Your task to perform on an android device: change the clock style Image 0: 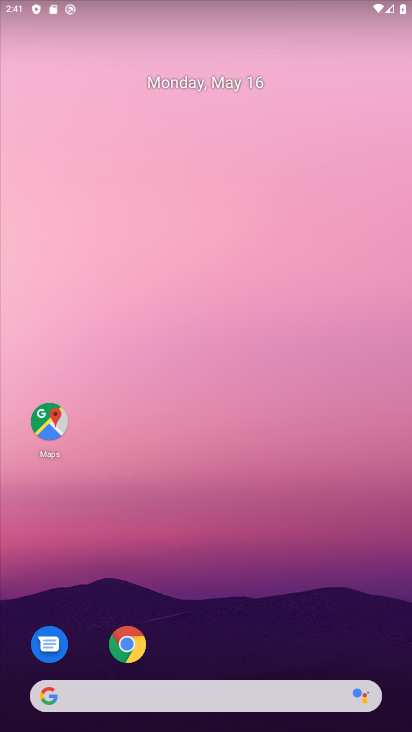
Step 0: drag from (173, 662) to (251, 243)
Your task to perform on an android device: change the clock style Image 1: 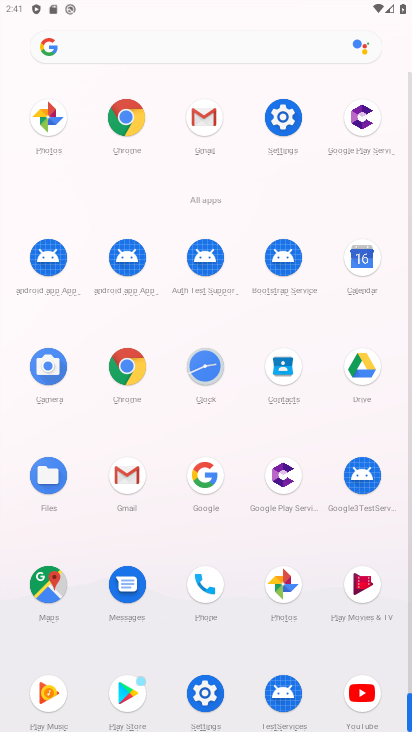
Step 1: click (204, 342)
Your task to perform on an android device: change the clock style Image 2: 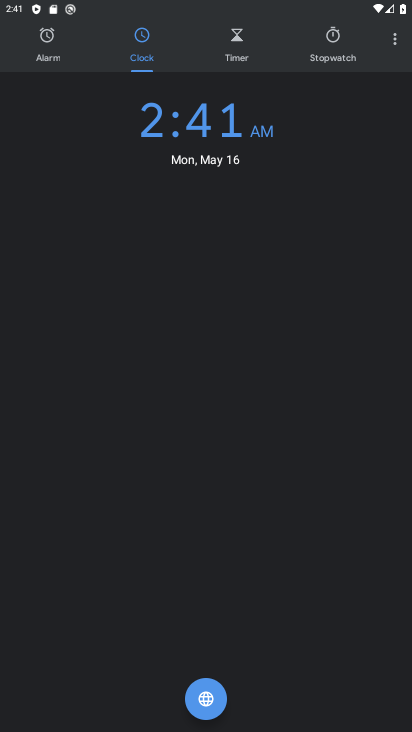
Step 2: click (389, 31)
Your task to perform on an android device: change the clock style Image 3: 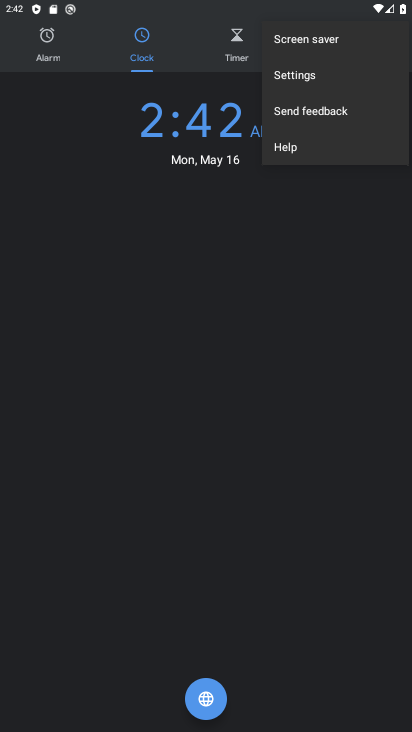
Step 3: click (339, 80)
Your task to perform on an android device: change the clock style Image 4: 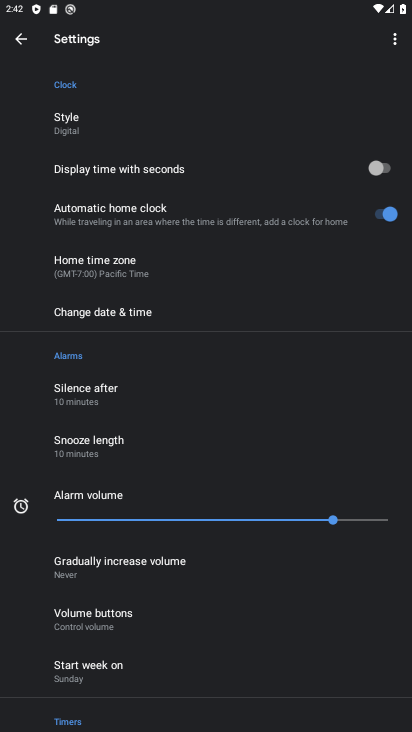
Step 4: click (190, 131)
Your task to perform on an android device: change the clock style Image 5: 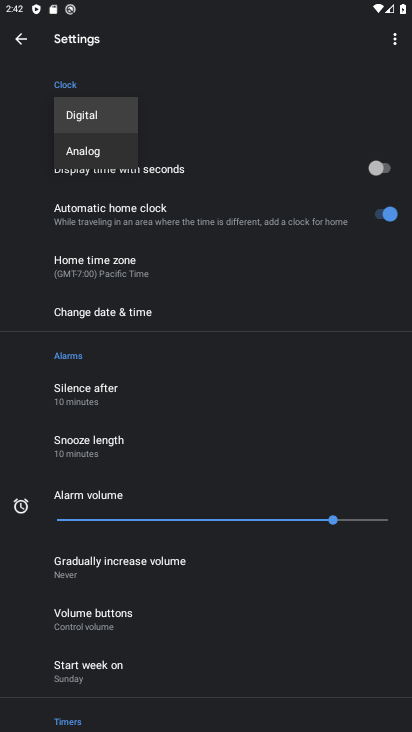
Step 5: click (100, 153)
Your task to perform on an android device: change the clock style Image 6: 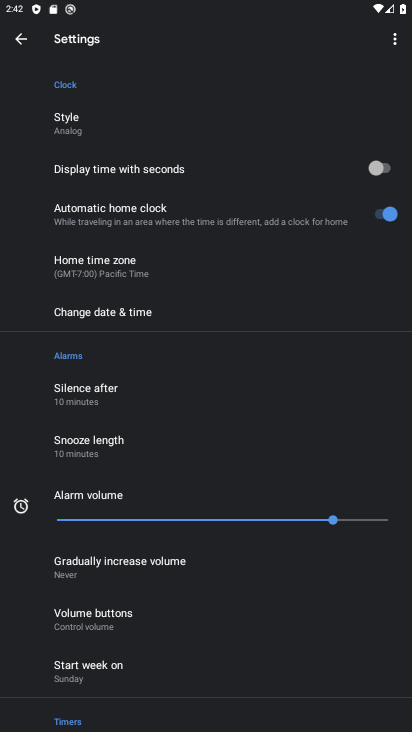
Step 6: task complete